Your task to perform on an android device: What's a good restaurant in Houston? Image 0: 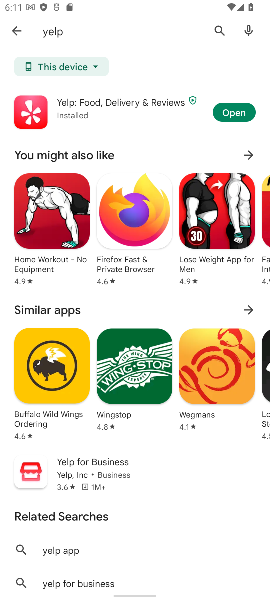
Step 0: press home button
Your task to perform on an android device: What's a good restaurant in Houston? Image 1: 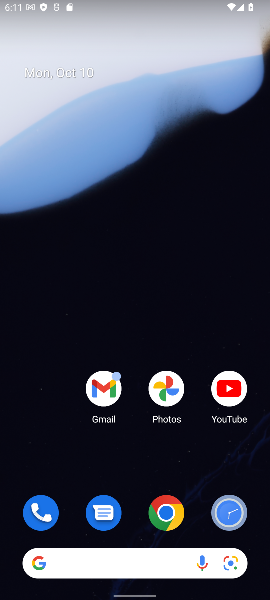
Step 1: click (138, 572)
Your task to perform on an android device: What's a good restaurant in Houston? Image 2: 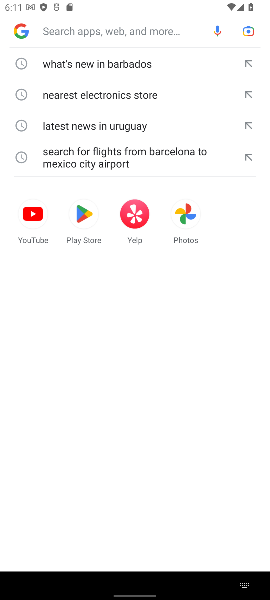
Step 2: type "What's a good restaurant in Houston?"
Your task to perform on an android device: What's a good restaurant in Houston? Image 3: 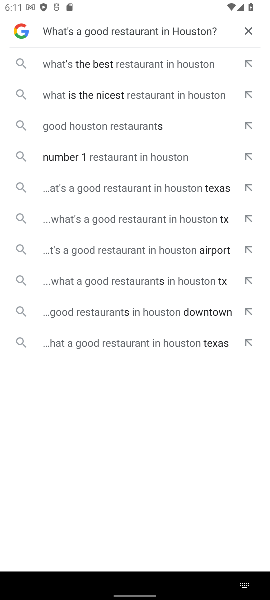
Step 3: click (142, 73)
Your task to perform on an android device: What's a good restaurant in Houston? Image 4: 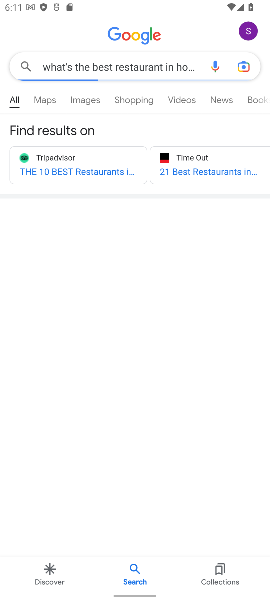
Step 4: task complete